Your task to perform on an android device: add a contact in the contacts app Image 0: 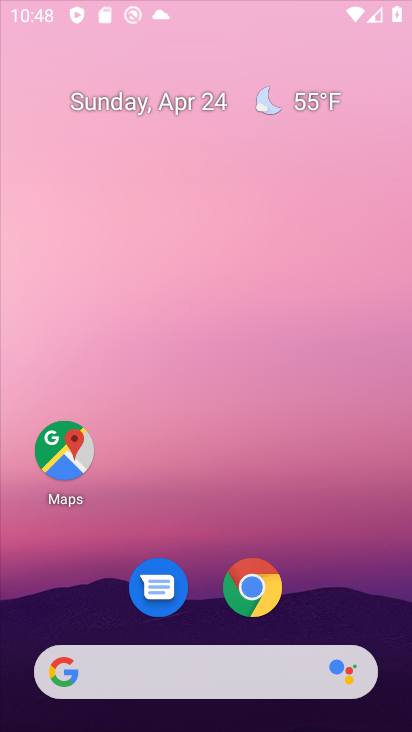
Step 0: drag from (366, 312) to (374, 82)
Your task to perform on an android device: add a contact in the contacts app Image 1: 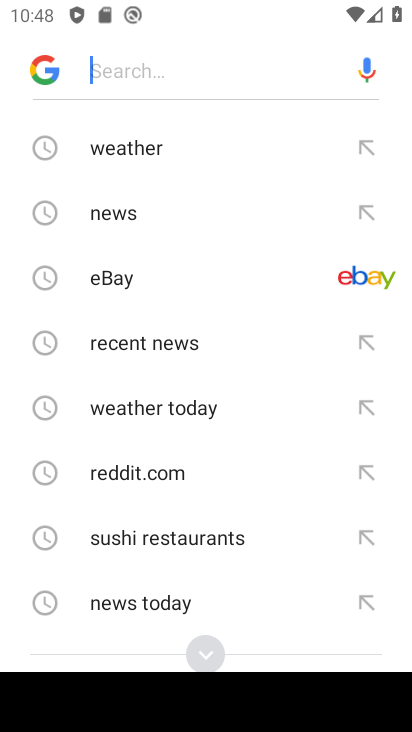
Step 1: press back button
Your task to perform on an android device: add a contact in the contacts app Image 2: 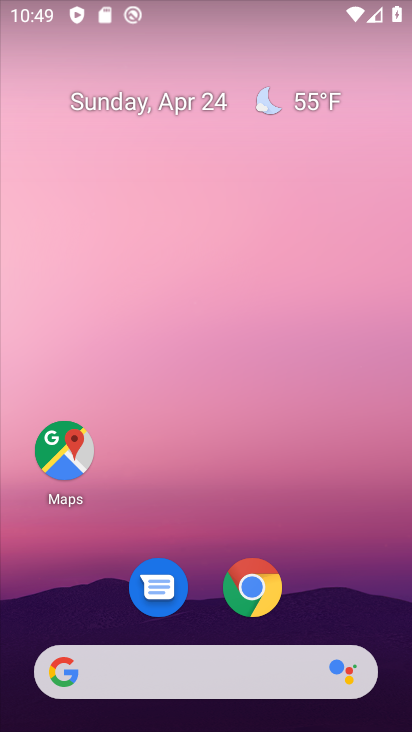
Step 2: drag from (360, 564) to (387, 183)
Your task to perform on an android device: add a contact in the contacts app Image 3: 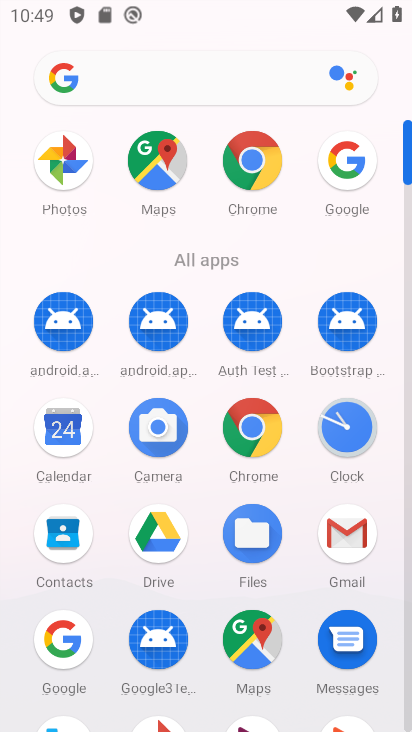
Step 3: click (61, 536)
Your task to perform on an android device: add a contact in the contacts app Image 4: 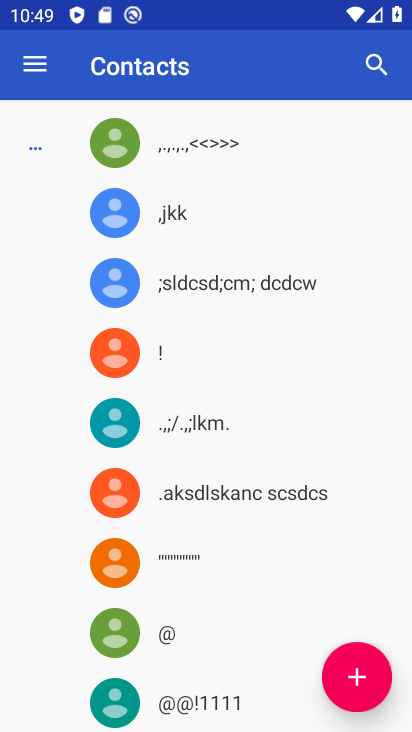
Step 4: click (364, 686)
Your task to perform on an android device: add a contact in the contacts app Image 5: 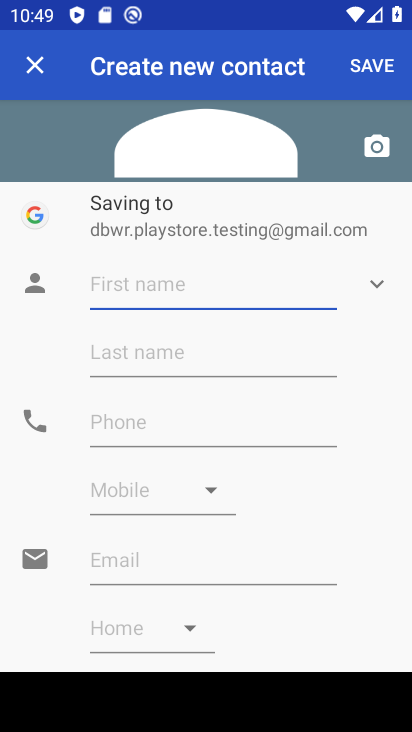
Step 5: type "ramu"
Your task to perform on an android device: add a contact in the contacts app Image 6: 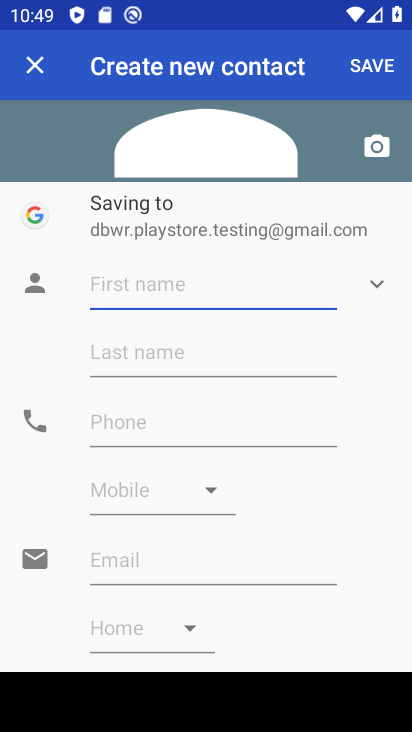
Step 6: click (127, 419)
Your task to perform on an android device: add a contact in the contacts app Image 7: 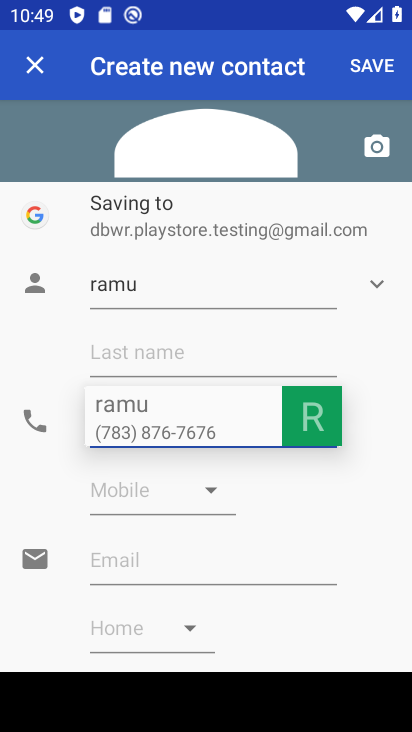
Step 7: type "5567772882"
Your task to perform on an android device: add a contact in the contacts app Image 8: 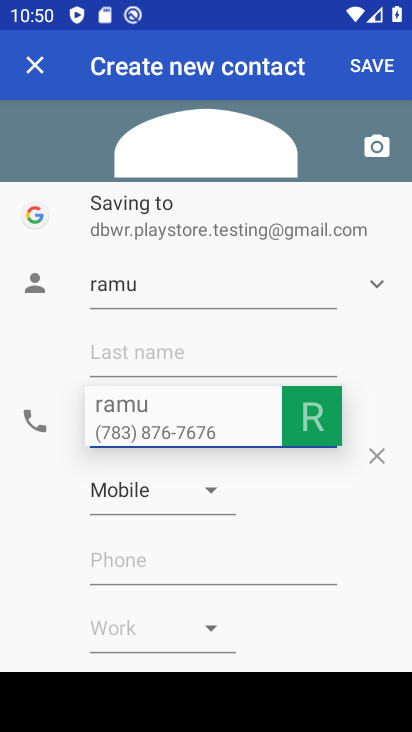
Step 8: type "6282828822"
Your task to perform on an android device: add a contact in the contacts app Image 9: 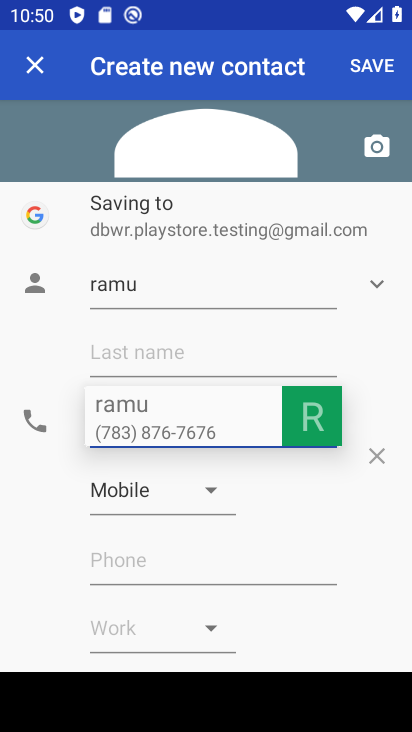
Step 9: click (315, 356)
Your task to perform on an android device: add a contact in the contacts app Image 10: 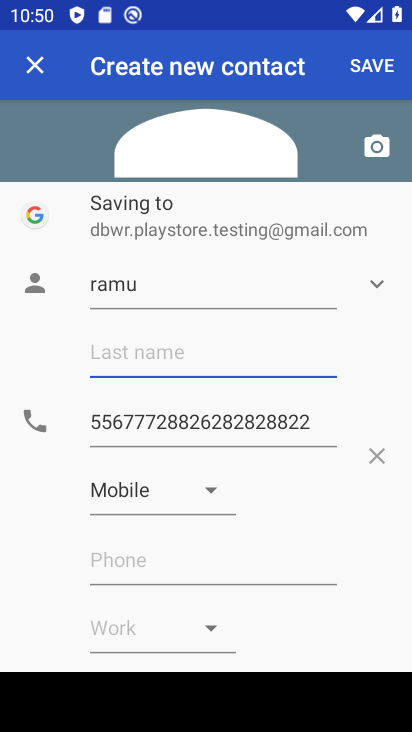
Step 10: click (375, 61)
Your task to perform on an android device: add a contact in the contacts app Image 11: 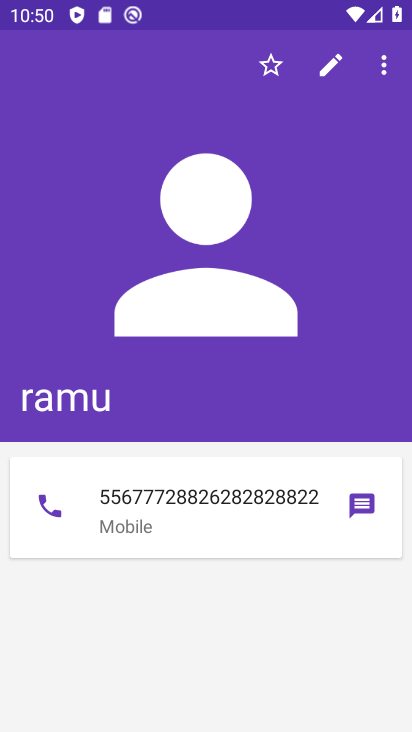
Step 11: task complete